Your task to perform on an android device: Search for Italian restaurants on Maps Image 0: 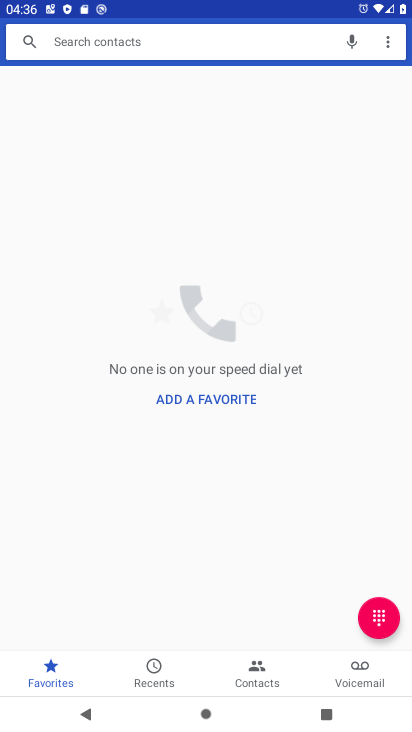
Step 0: press home button
Your task to perform on an android device: Search for Italian restaurants on Maps Image 1: 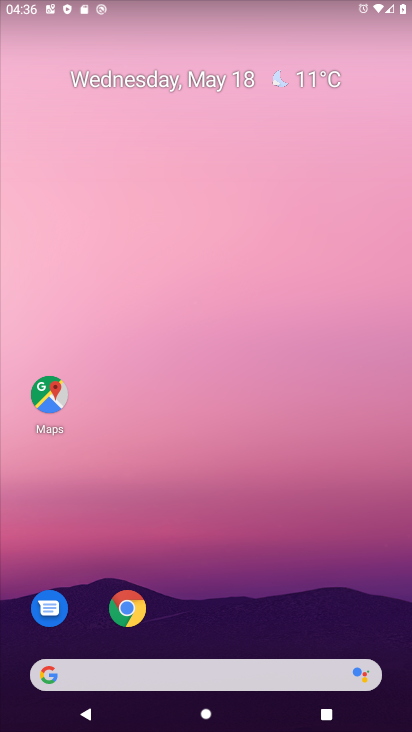
Step 1: click (34, 388)
Your task to perform on an android device: Search for Italian restaurants on Maps Image 2: 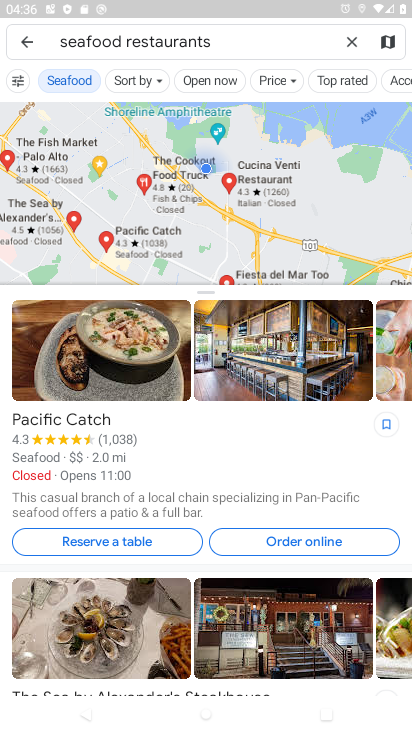
Step 2: click (354, 48)
Your task to perform on an android device: Search for Italian restaurants on Maps Image 3: 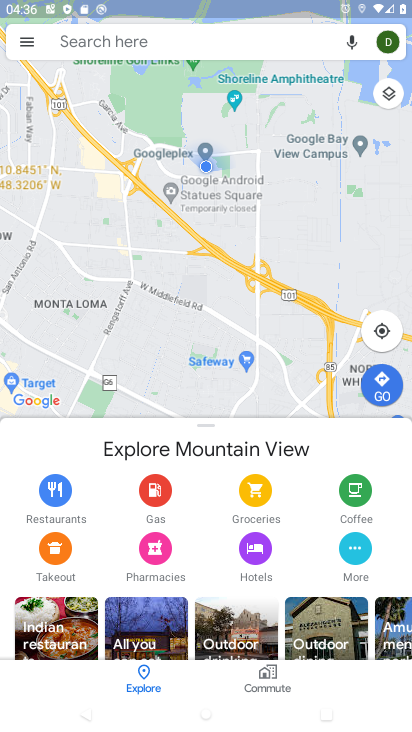
Step 3: click (155, 38)
Your task to perform on an android device: Search for Italian restaurants on Maps Image 4: 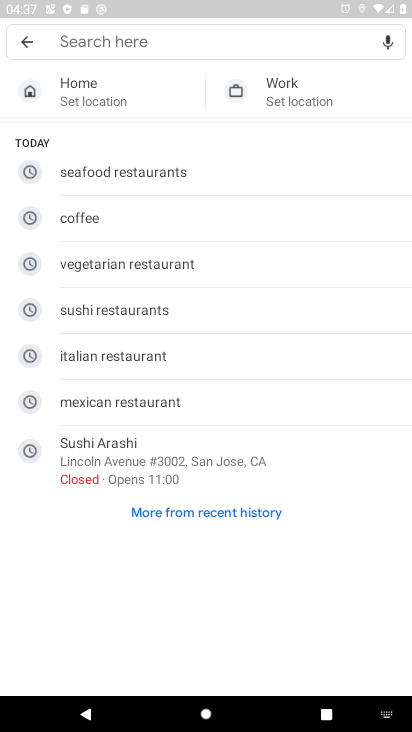
Step 4: click (162, 361)
Your task to perform on an android device: Search for Italian restaurants on Maps Image 5: 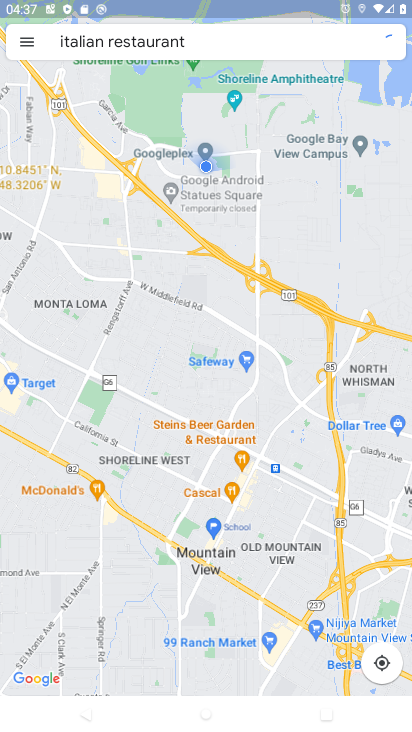
Step 5: task complete